Your task to perform on an android device: Go to Android settings Image 0: 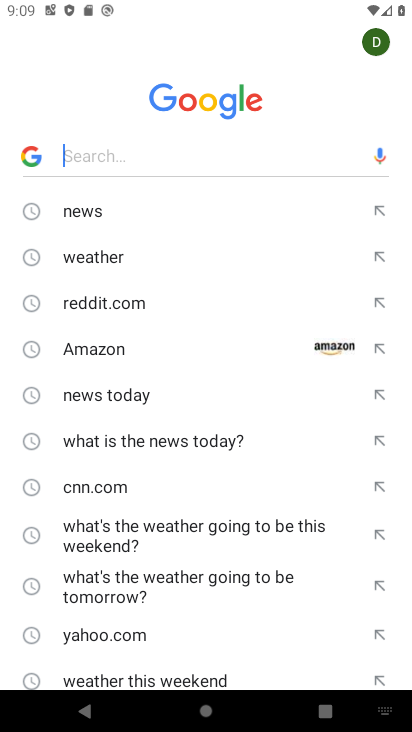
Step 0: press home button
Your task to perform on an android device: Go to Android settings Image 1: 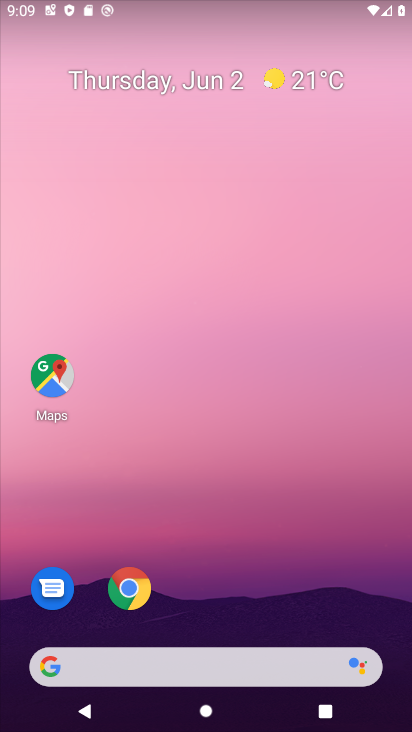
Step 1: click (159, 2)
Your task to perform on an android device: Go to Android settings Image 2: 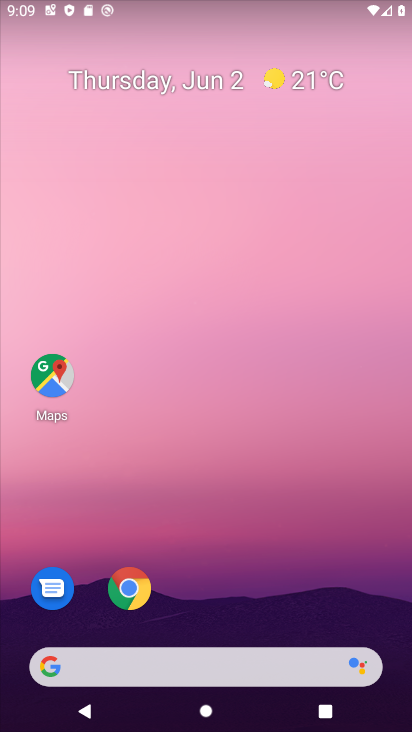
Step 2: drag from (224, 653) to (212, 0)
Your task to perform on an android device: Go to Android settings Image 3: 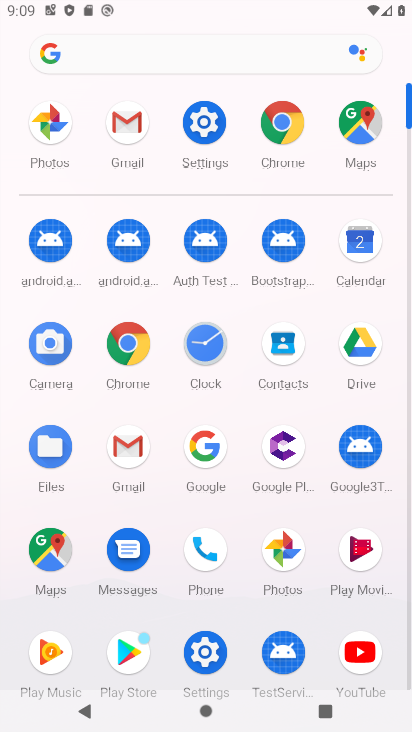
Step 3: click (207, 139)
Your task to perform on an android device: Go to Android settings Image 4: 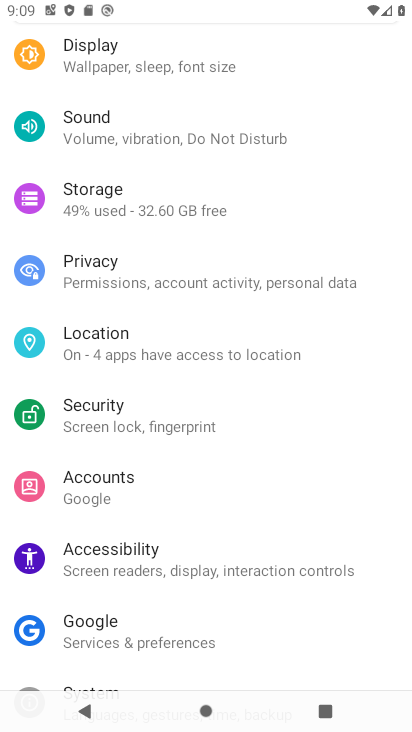
Step 4: task complete